Your task to perform on an android device: Go to display settings Image 0: 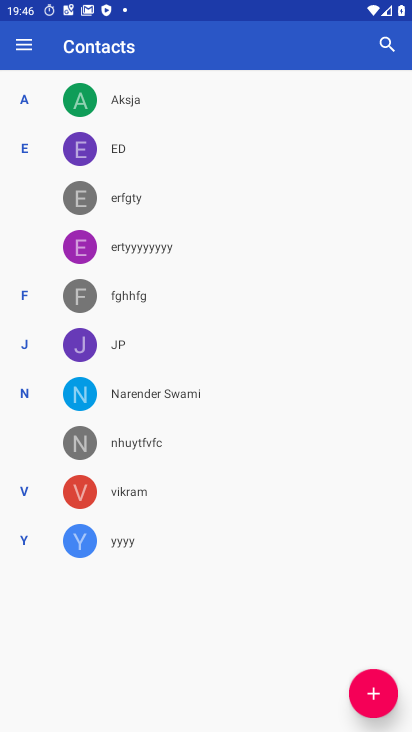
Step 0: press home button
Your task to perform on an android device: Go to display settings Image 1: 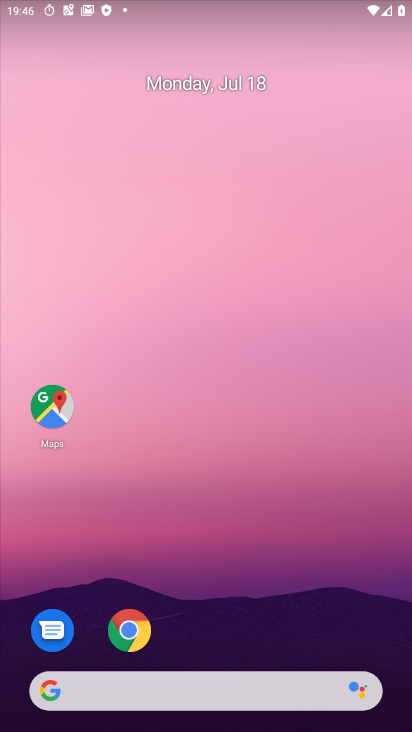
Step 1: drag from (256, 531) to (252, 82)
Your task to perform on an android device: Go to display settings Image 2: 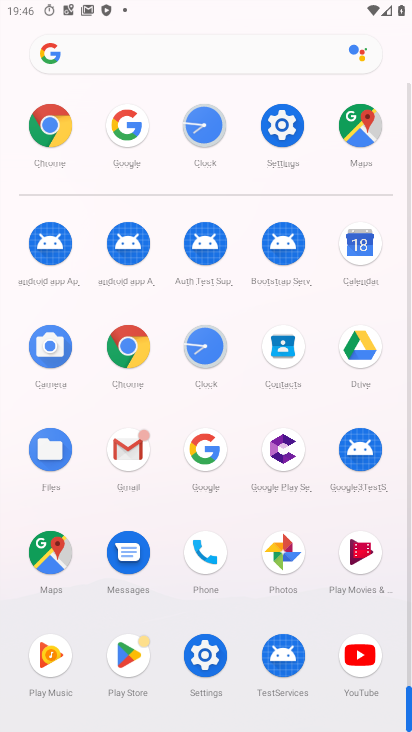
Step 2: click (269, 126)
Your task to perform on an android device: Go to display settings Image 3: 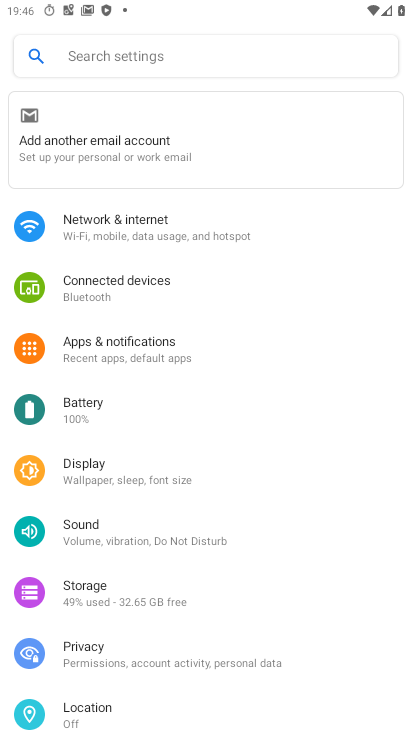
Step 3: click (65, 471)
Your task to perform on an android device: Go to display settings Image 4: 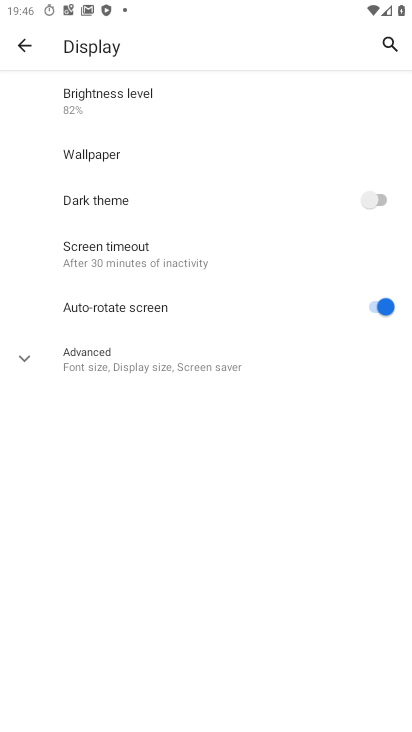
Step 4: task complete